Your task to perform on an android device: toggle airplane mode Image 0: 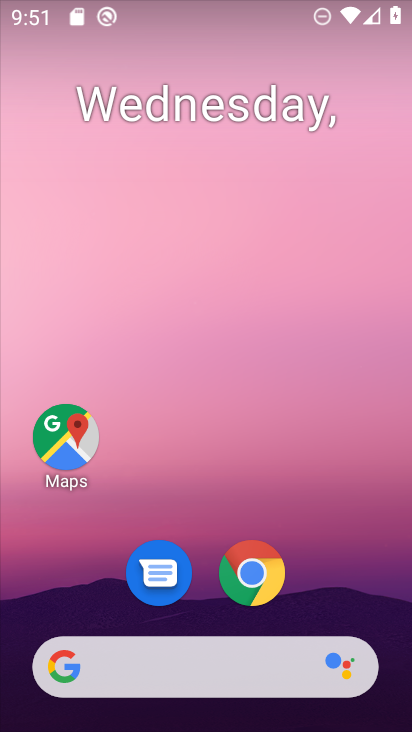
Step 0: click (372, 158)
Your task to perform on an android device: toggle airplane mode Image 1: 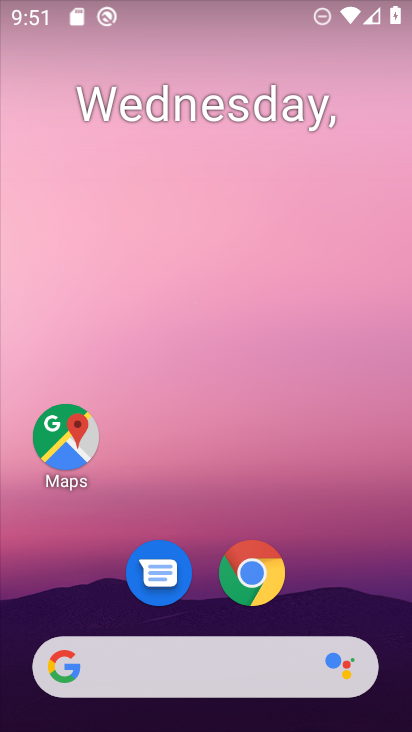
Step 1: drag from (365, 598) to (337, 197)
Your task to perform on an android device: toggle airplane mode Image 2: 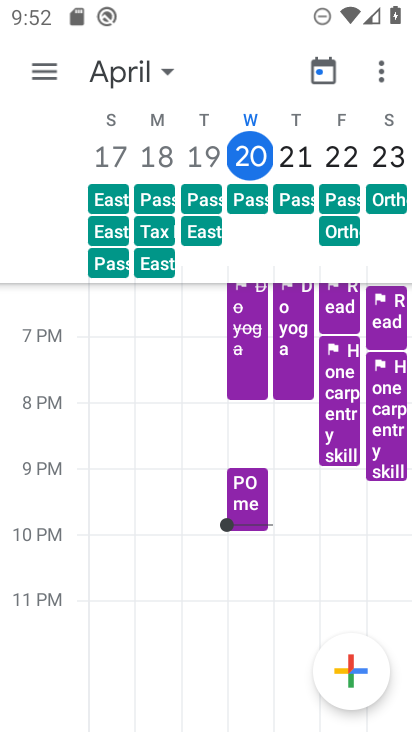
Step 2: press home button
Your task to perform on an android device: toggle airplane mode Image 3: 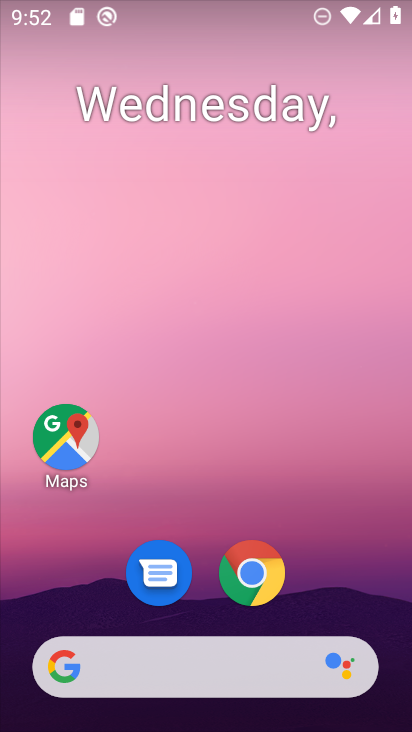
Step 3: drag from (355, 407) to (343, 202)
Your task to perform on an android device: toggle airplane mode Image 4: 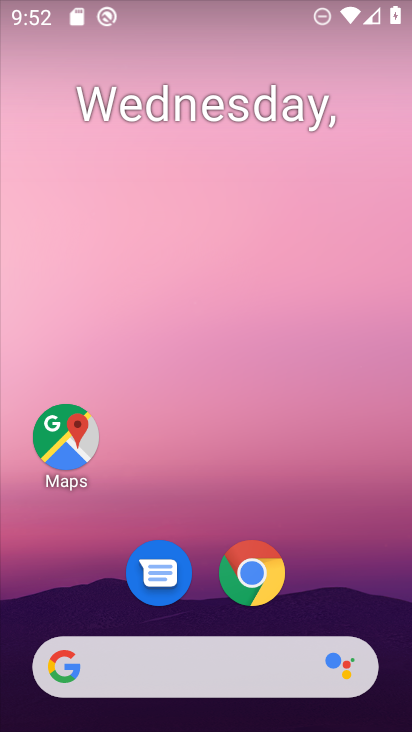
Step 4: drag from (352, 273) to (344, 122)
Your task to perform on an android device: toggle airplane mode Image 5: 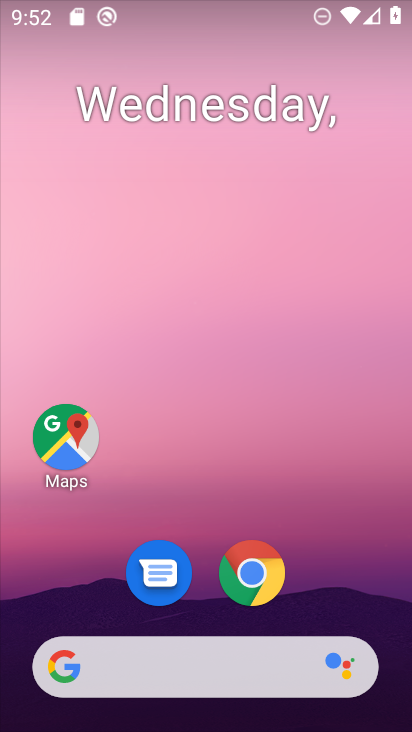
Step 5: drag from (358, 575) to (353, 57)
Your task to perform on an android device: toggle airplane mode Image 6: 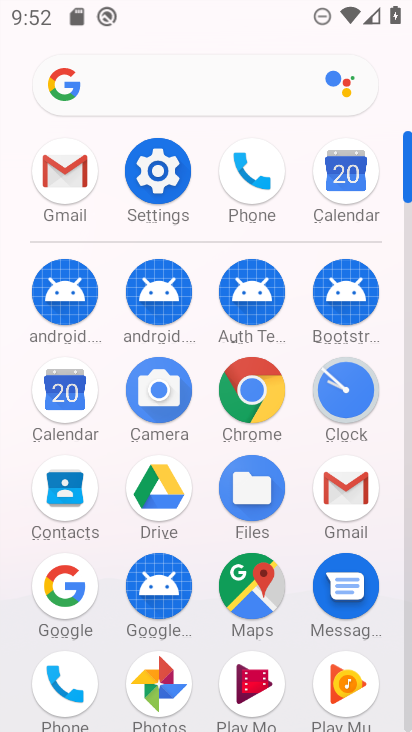
Step 6: click (156, 188)
Your task to perform on an android device: toggle airplane mode Image 7: 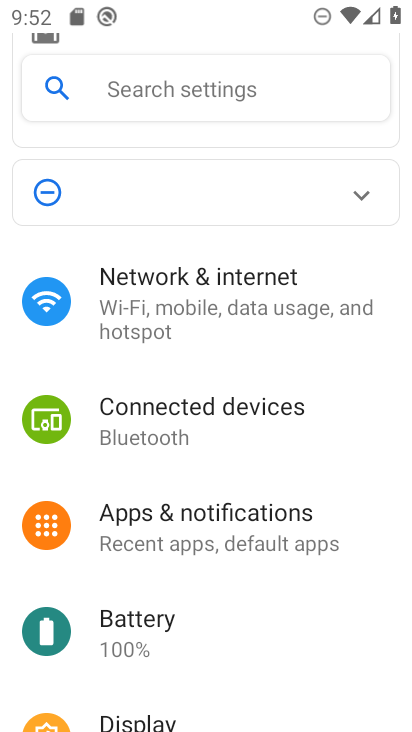
Step 7: click (178, 282)
Your task to perform on an android device: toggle airplane mode Image 8: 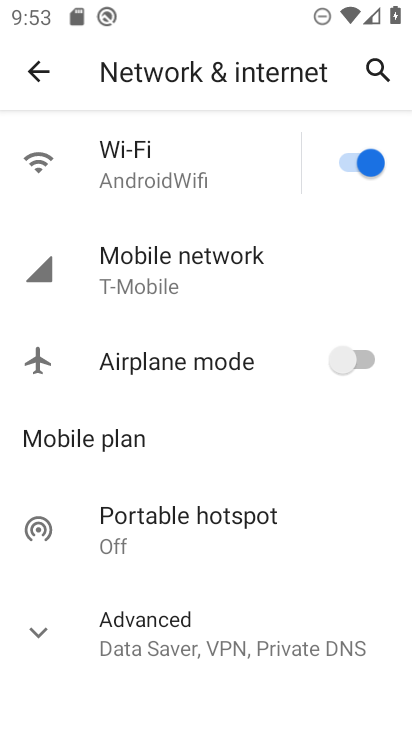
Step 8: click (170, 169)
Your task to perform on an android device: toggle airplane mode Image 9: 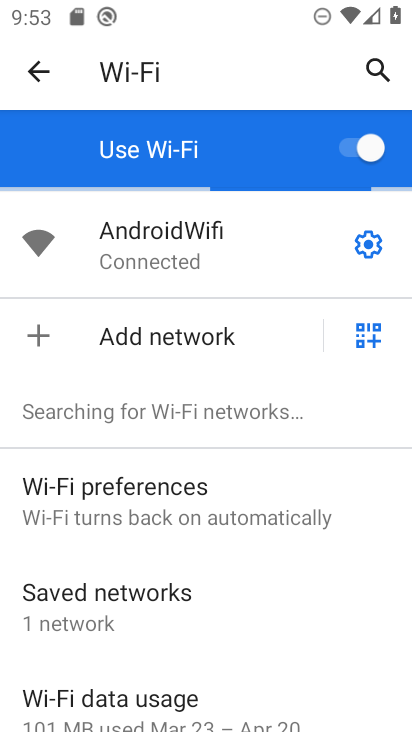
Step 9: click (30, 66)
Your task to perform on an android device: toggle airplane mode Image 10: 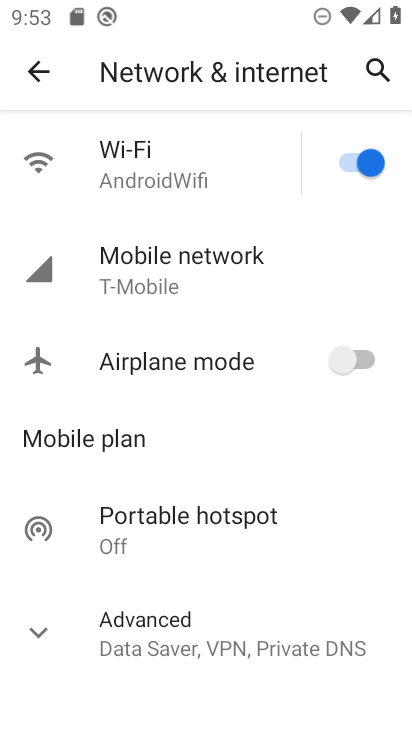
Step 10: click (355, 355)
Your task to perform on an android device: toggle airplane mode Image 11: 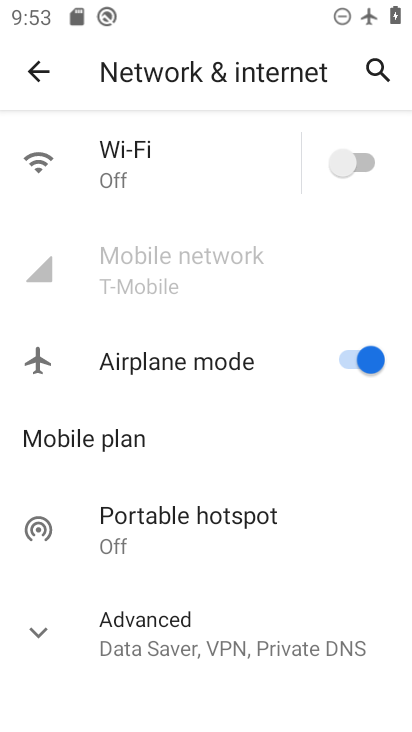
Step 11: task complete